Your task to perform on an android device: star an email in the gmail app Image 0: 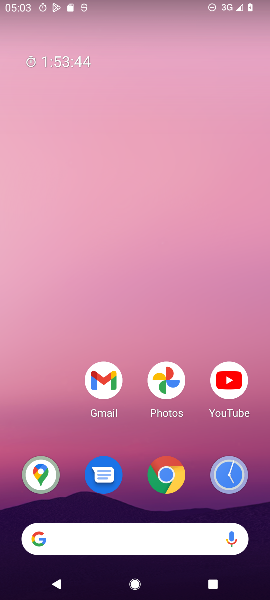
Step 0: press home button
Your task to perform on an android device: star an email in the gmail app Image 1: 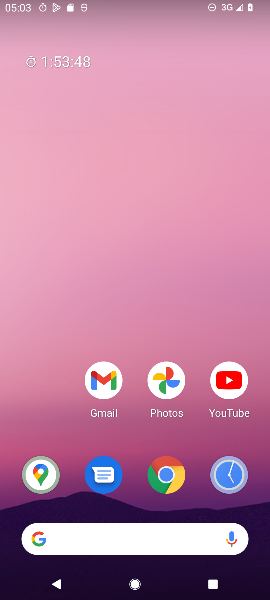
Step 1: drag from (63, 446) to (69, 207)
Your task to perform on an android device: star an email in the gmail app Image 2: 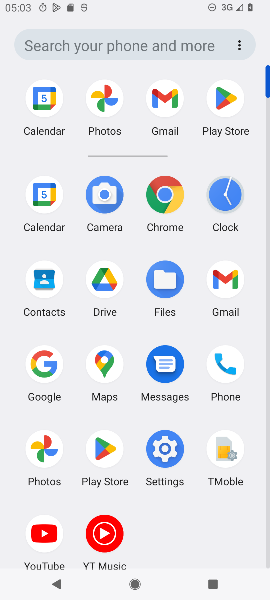
Step 2: click (229, 280)
Your task to perform on an android device: star an email in the gmail app Image 3: 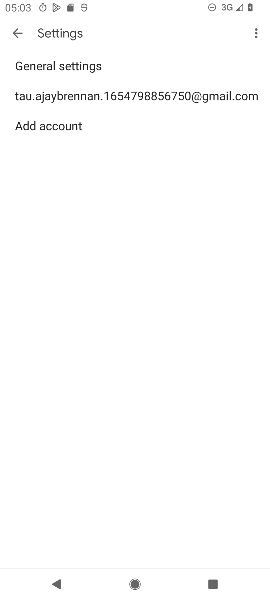
Step 3: press back button
Your task to perform on an android device: star an email in the gmail app Image 4: 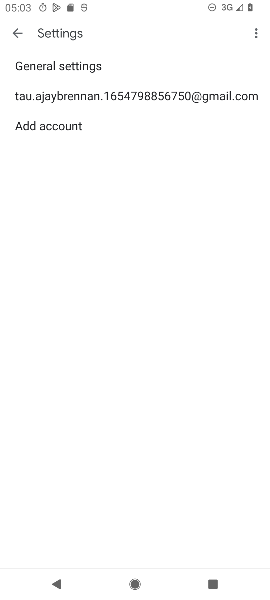
Step 4: press back button
Your task to perform on an android device: star an email in the gmail app Image 5: 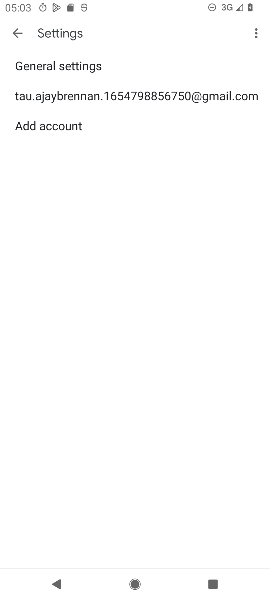
Step 5: click (17, 29)
Your task to perform on an android device: star an email in the gmail app Image 6: 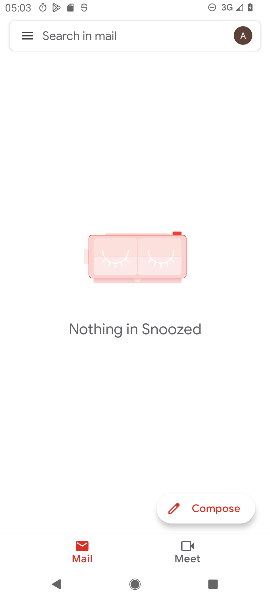
Step 6: click (32, 31)
Your task to perform on an android device: star an email in the gmail app Image 7: 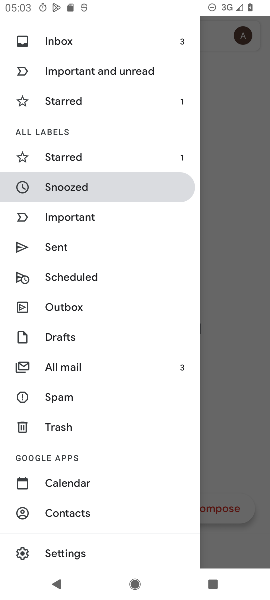
Step 7: click (88, 364)
Your task to perform on an android device: star an email in the gmail app Image 8: 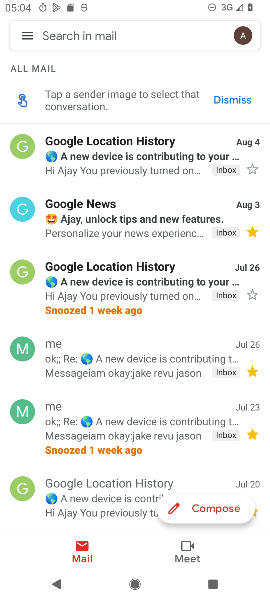
Step 8: click (254, 296)
Your task to perform on an android device: star an email in the gmail app Image 9: 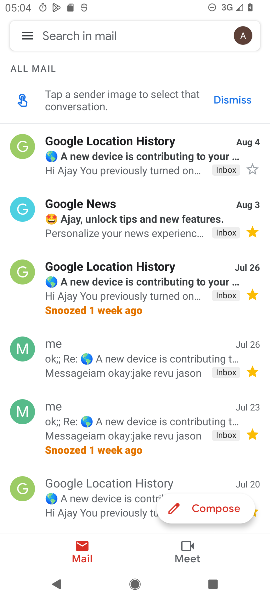
Step 9: task complete